Your task to perform on an android device: What's on my calendar tomorrow? Image 0: 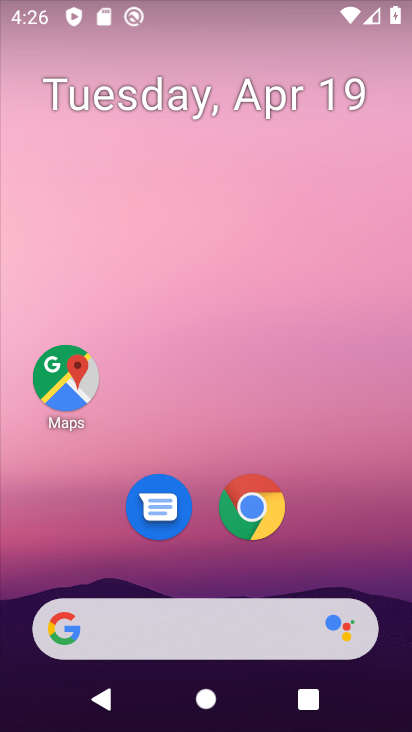
Step 0: drag from (327, 501) to (275, 10)
Your task to perform on an android device: What's on my calendar tomorrow? Image 1: 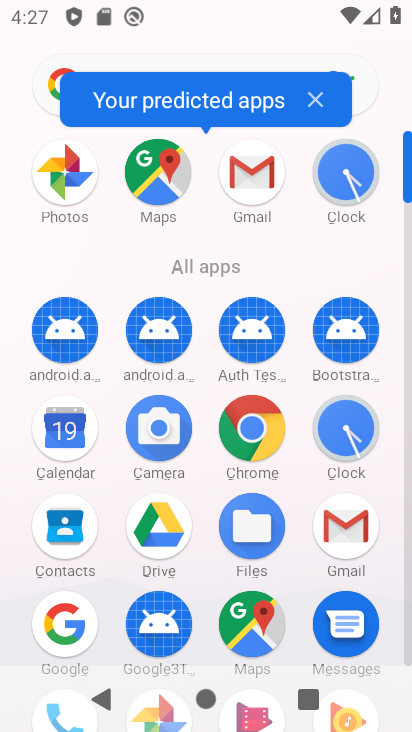
Step 1: click (70, 431)
Your task to perform on an android device: What's on my calendar tomorrow? Image 2: 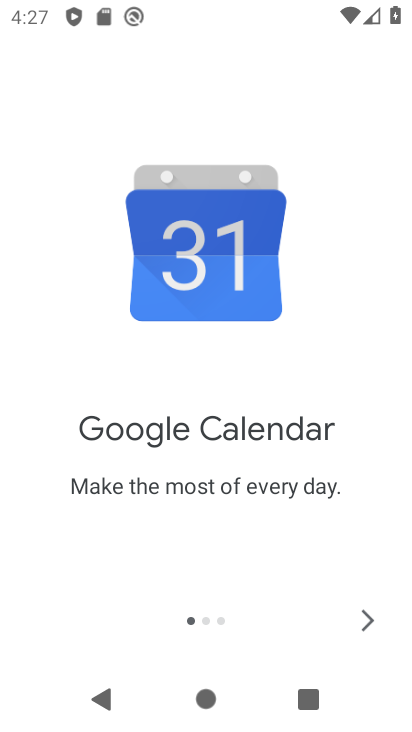
Step 2: click (370, 609)
Your task to perform on an android device: What's on my calendar tomorrow? Image 3: 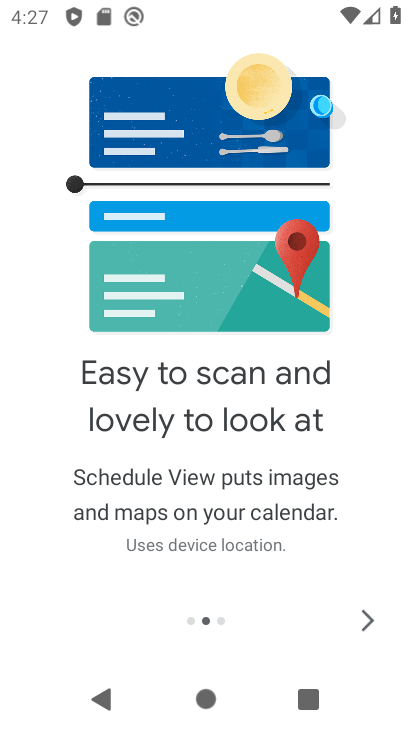
Step 3: click (357, 617)
Your task to perform on an android device: What's on my calendar tomorrow? Image 4: 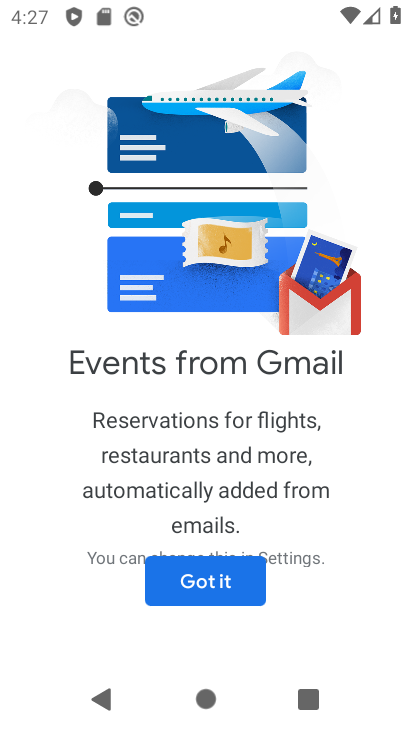
Step 4: click (194, 576)
Your task to perform on an android device: What's on my calendar tomorrow? Image 5: 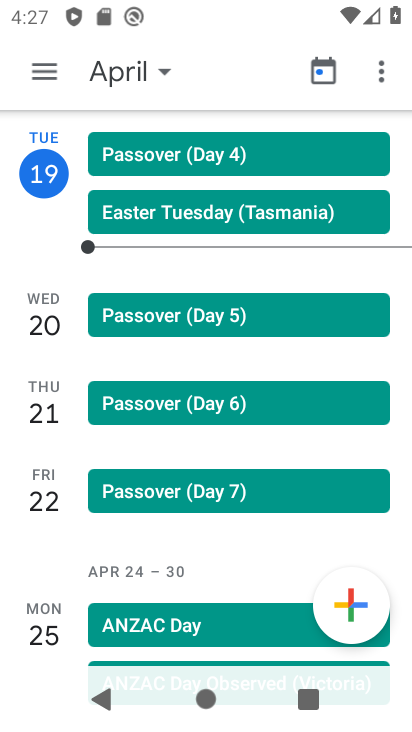
Step 5: click (142, 319)
Your task to perform on an android device: What's on my calendar tomorrow? Image 6: 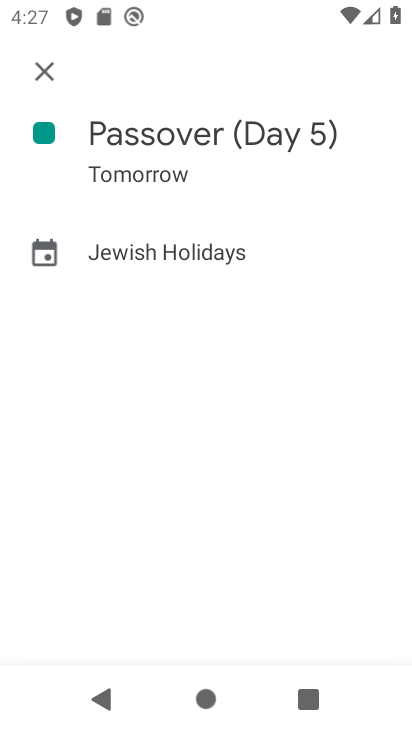
Step 6: click (39, 69)
Your task to perform on an android device: What's on my calendar tomorrow? Image 7: 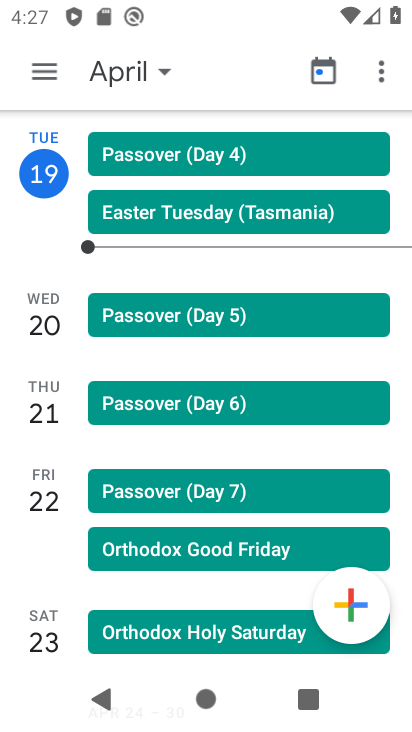
Step 7: click (51, 317)
Your task to perform on an android device: What's on my calendar tomorrow? Image 8: 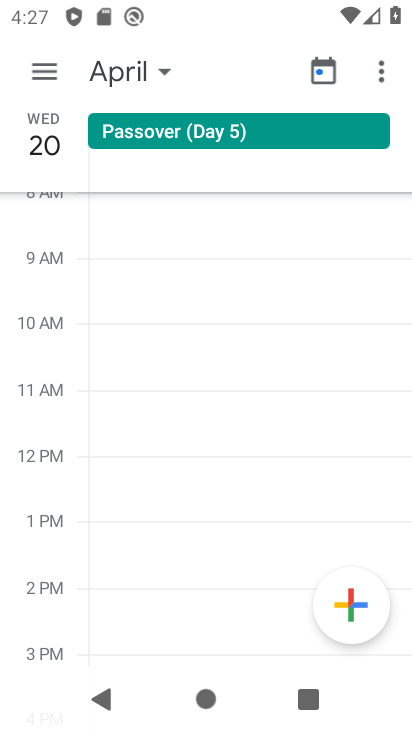
Step 8: task complete